Your task to perform on an android device: turn pop-ups on in chrome Image 0: 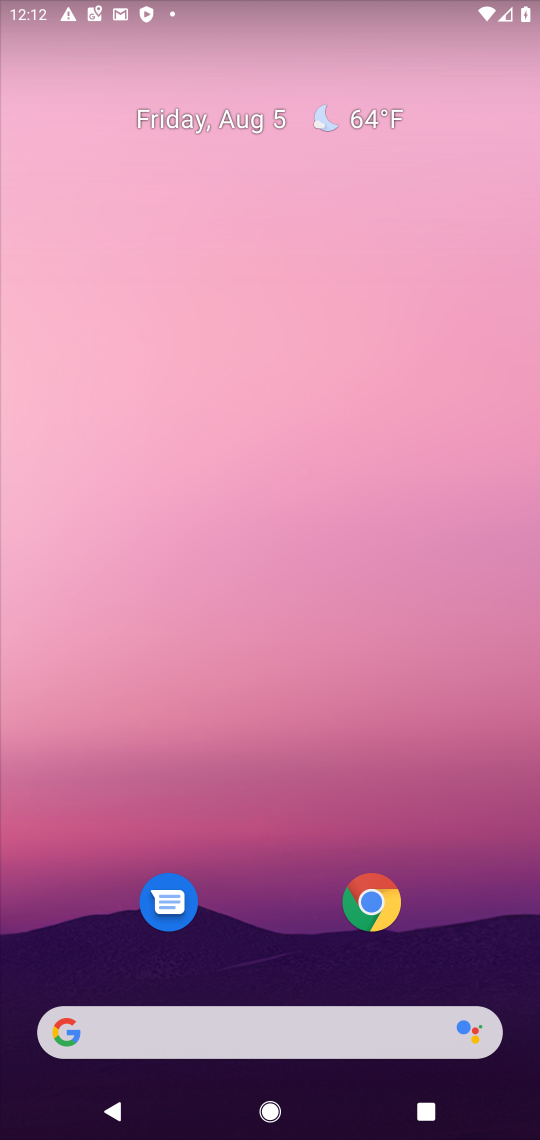
Step 0: click (362, 899)
Your task to perform on an android device: turn pop-ups on in chrome Image 1: 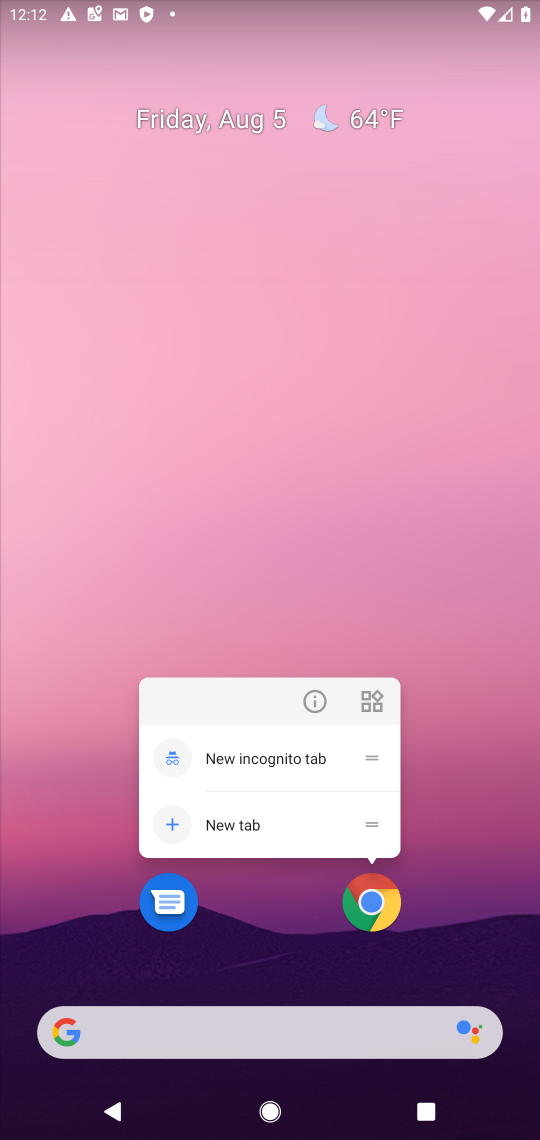
Step 1: click (282, 957)
Your task to perform on an android device: turn pop-ups on in chrome Image 2: 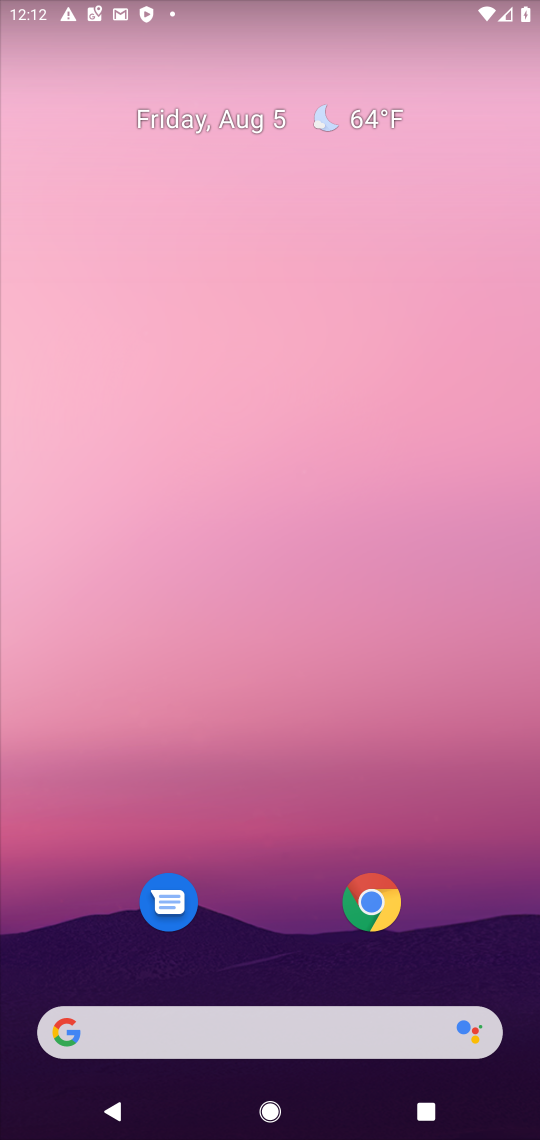
Step 2: drag from (283, 789) to (322, 104)
Your task to perform on an android device: turn pop-ups on in chrome Image 3: 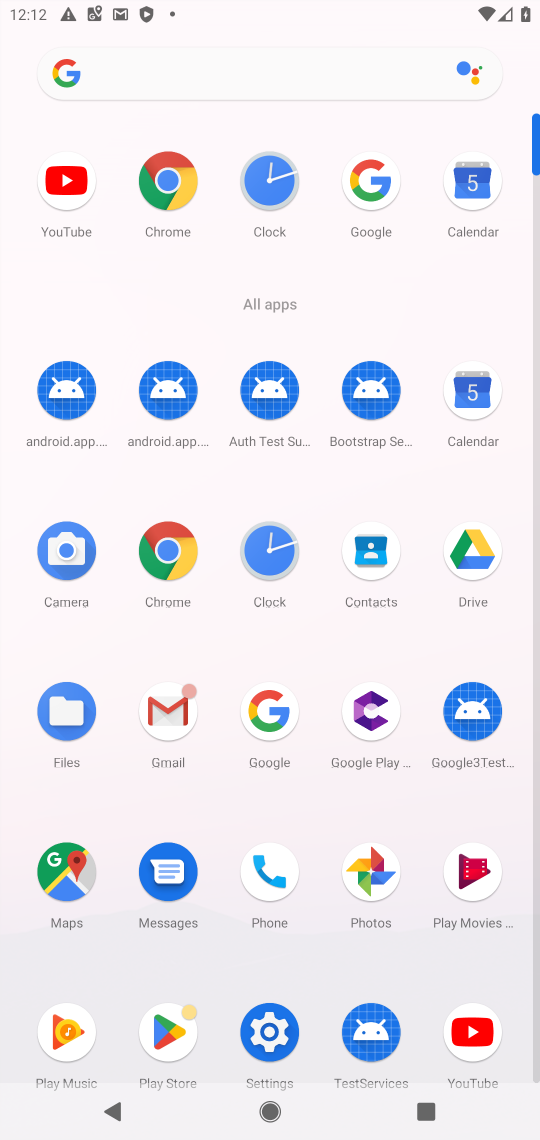
Step 3: click (165, 547)
Your task to perform on an android device: turn pop-ups on in chrome Image 4: 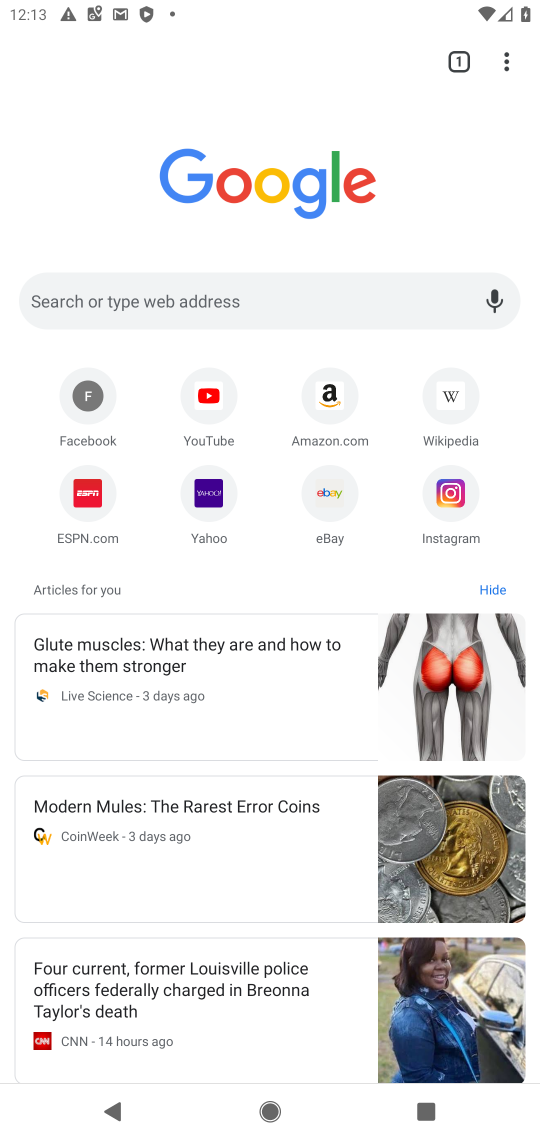
Step 4: click (505, 64)
Your task to perform on an android device: turn pop-ups on in chrome Image 5: 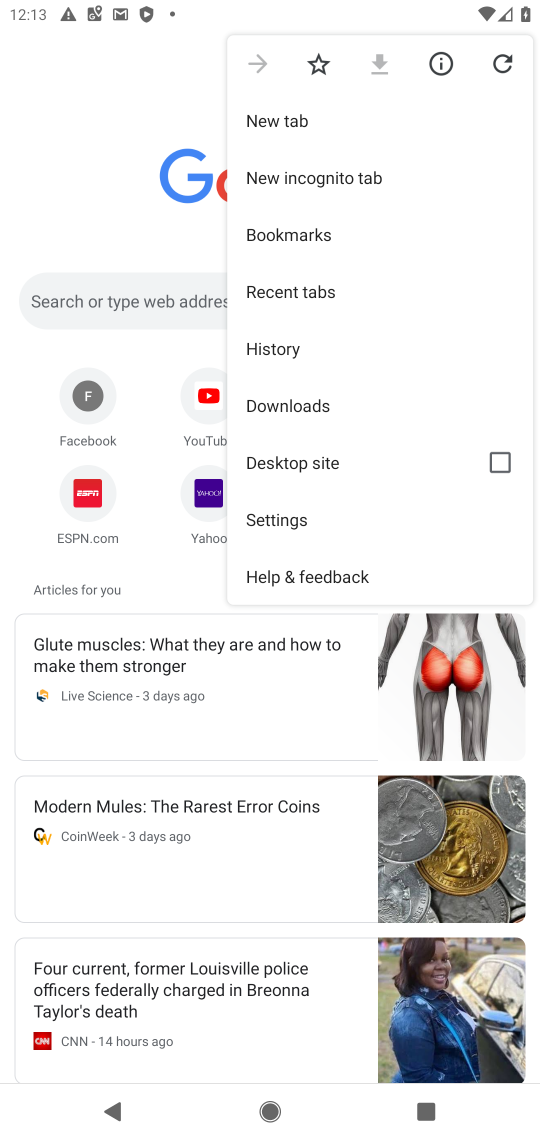
Step 5: click (287, 521)
Your task to perform on an android device: turn pop-ups on in chrome Image 6: 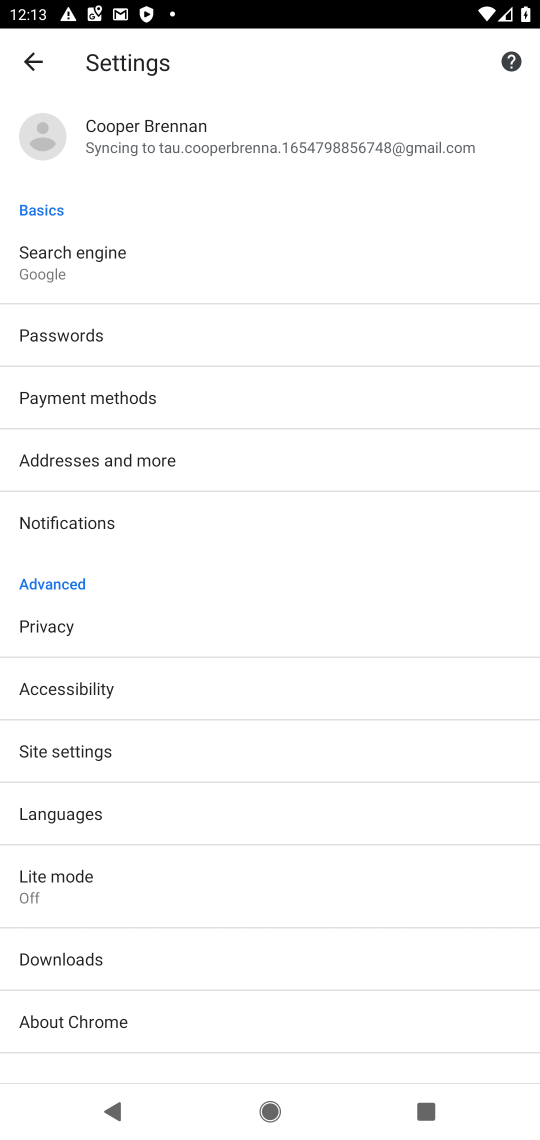
Step 6: click (132, 733)
Your task to perform on an android device: turn pop-ups on in chrome Image 7: 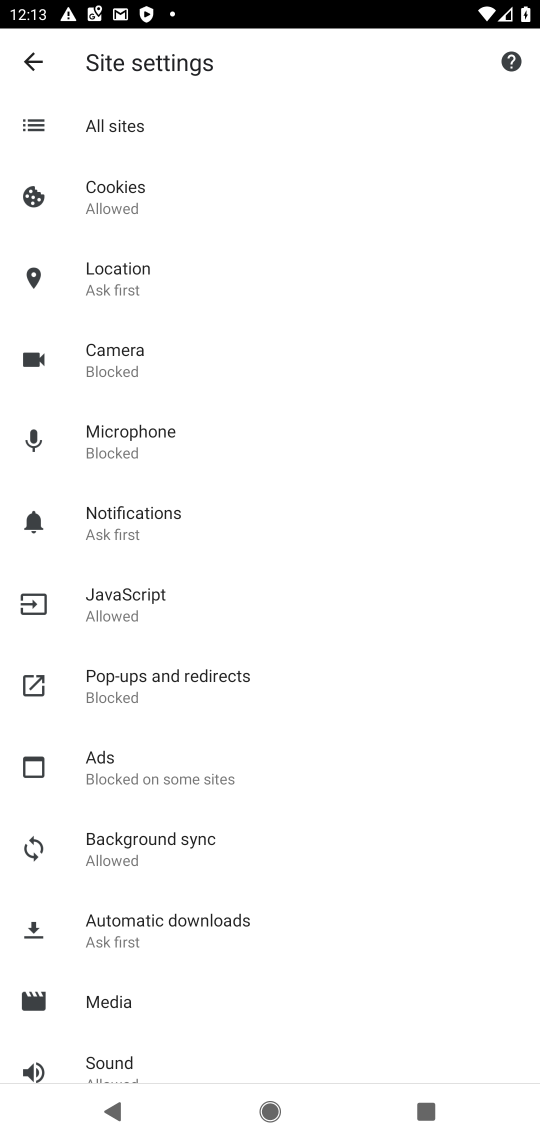
Step 7: click (157, 684)
Your task to perform on an android device: turn pop-ups on in chrome Image 8: 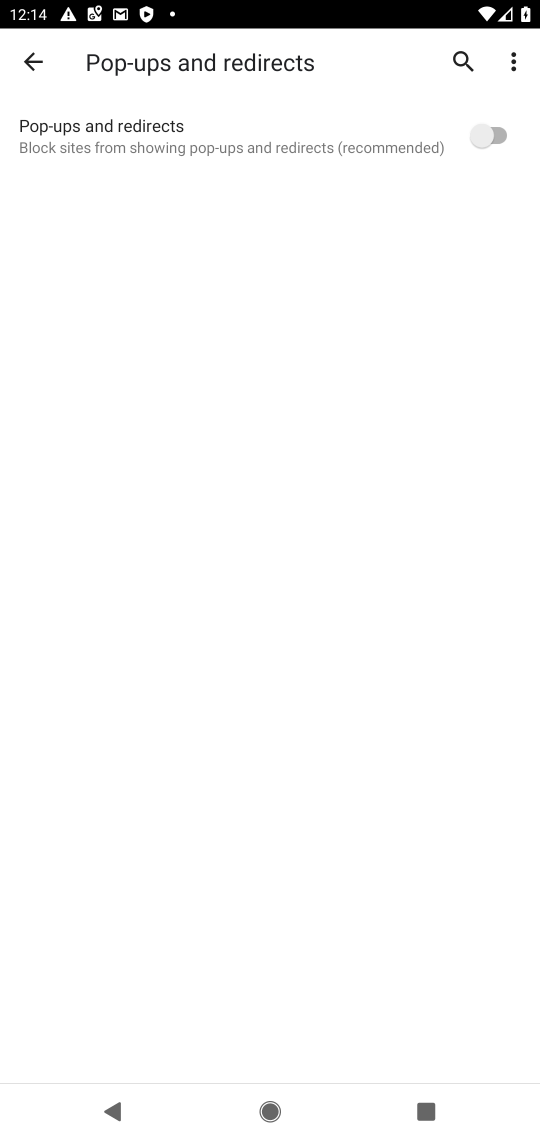
Step 8: click (492, 126)
Your task to perform on an android device: turn pop-ups on in chrome Image 9: 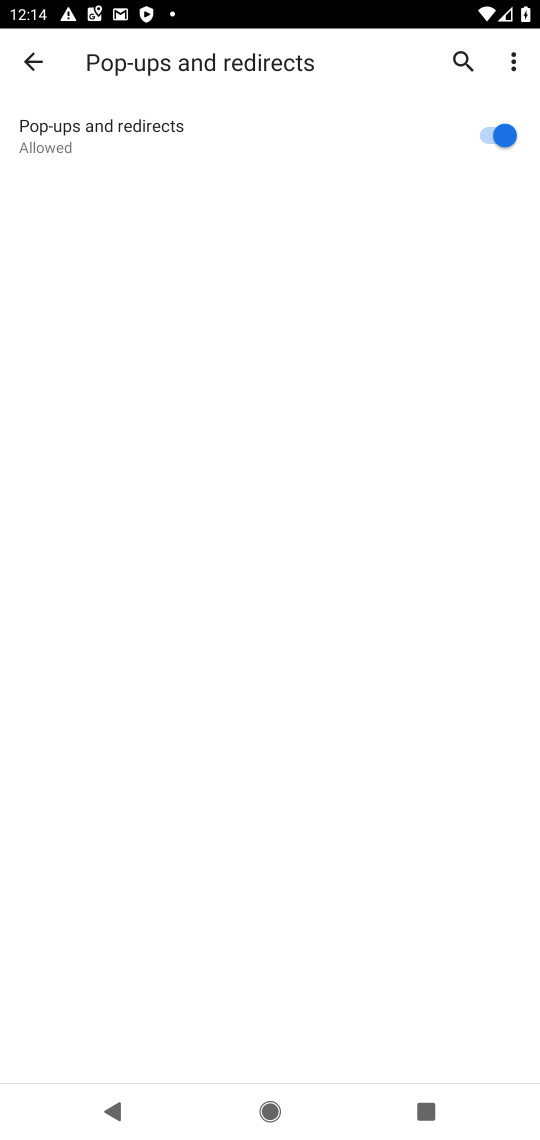
Step 9: task complete